Your task to perform on an android device: Go to notification settings Image 0: 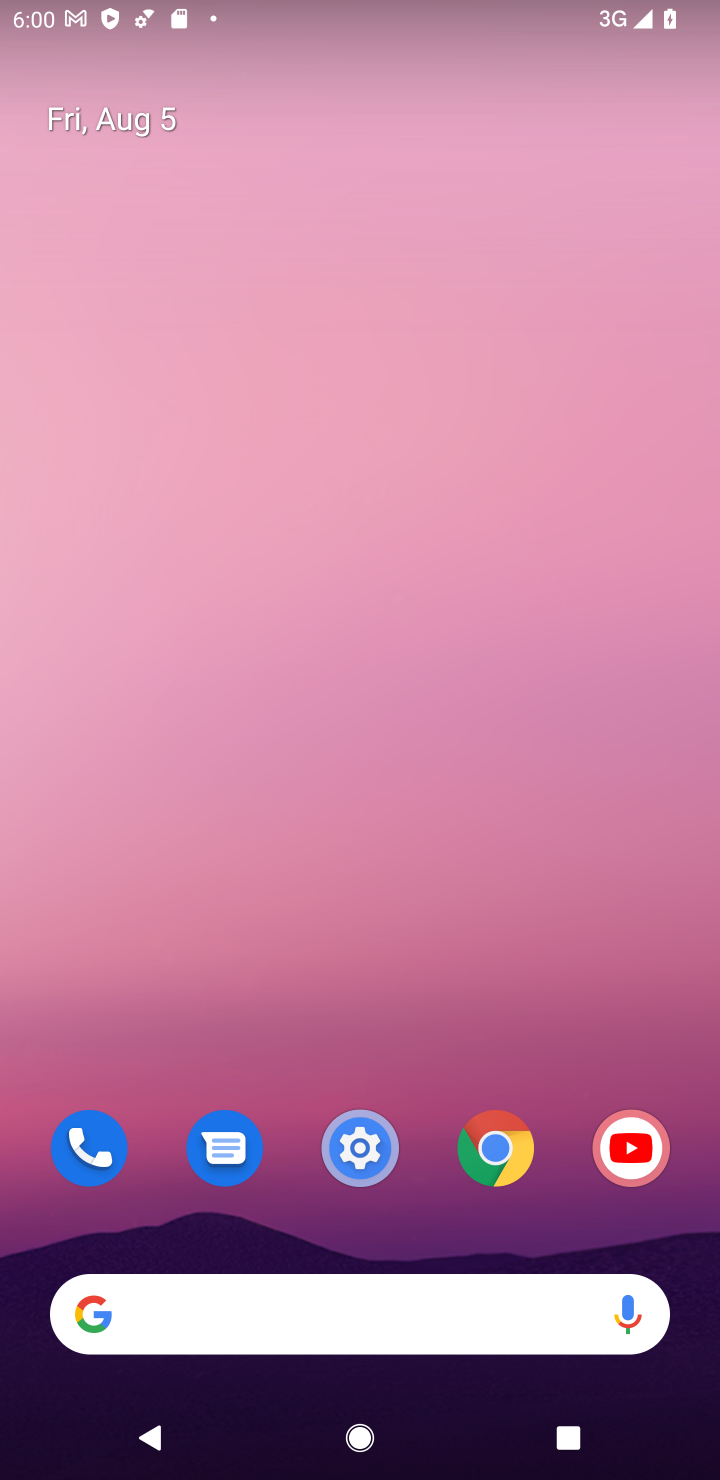
Step 0: click (358, 1151)
Your task to perform on an android device: Go to notification settings Image 1: 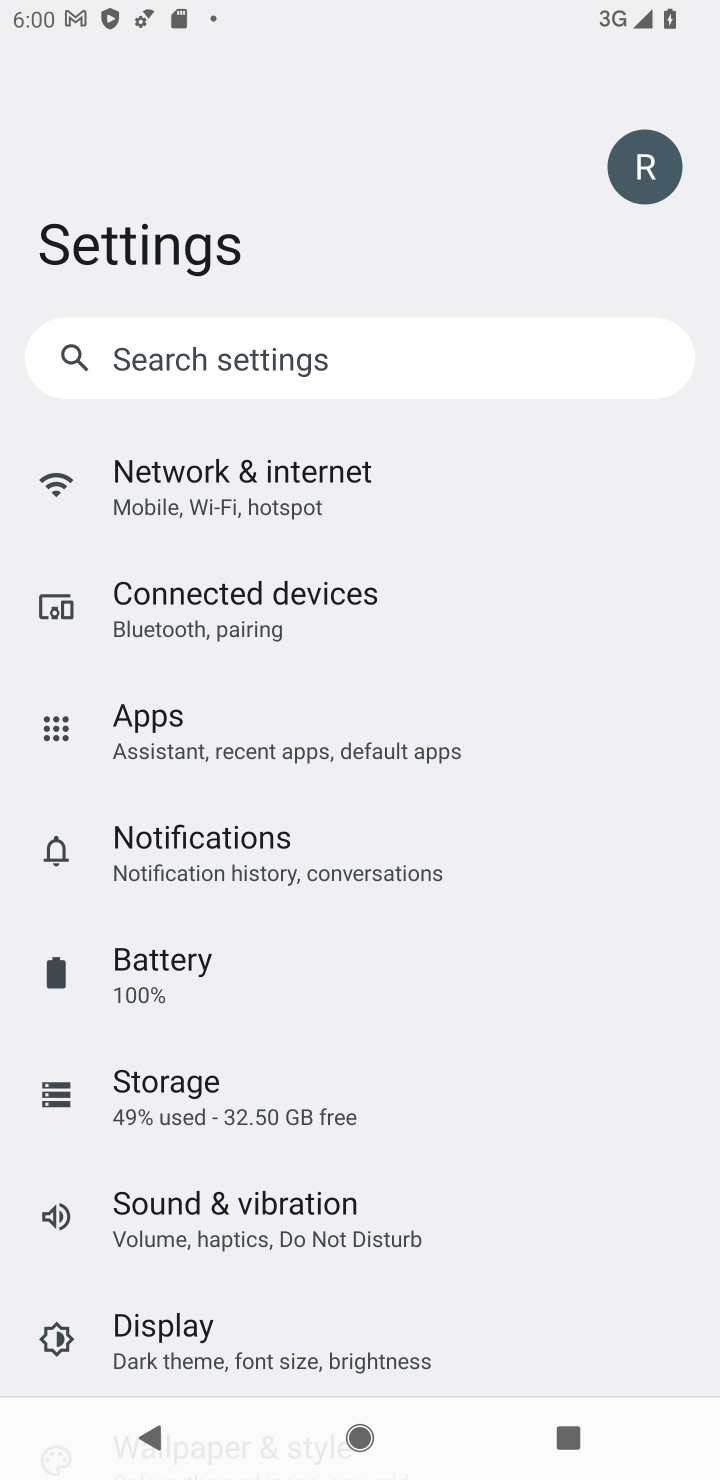
Step 1: click (225, 825)
Your task to perform on an android device: Go to notification settings Image 2: 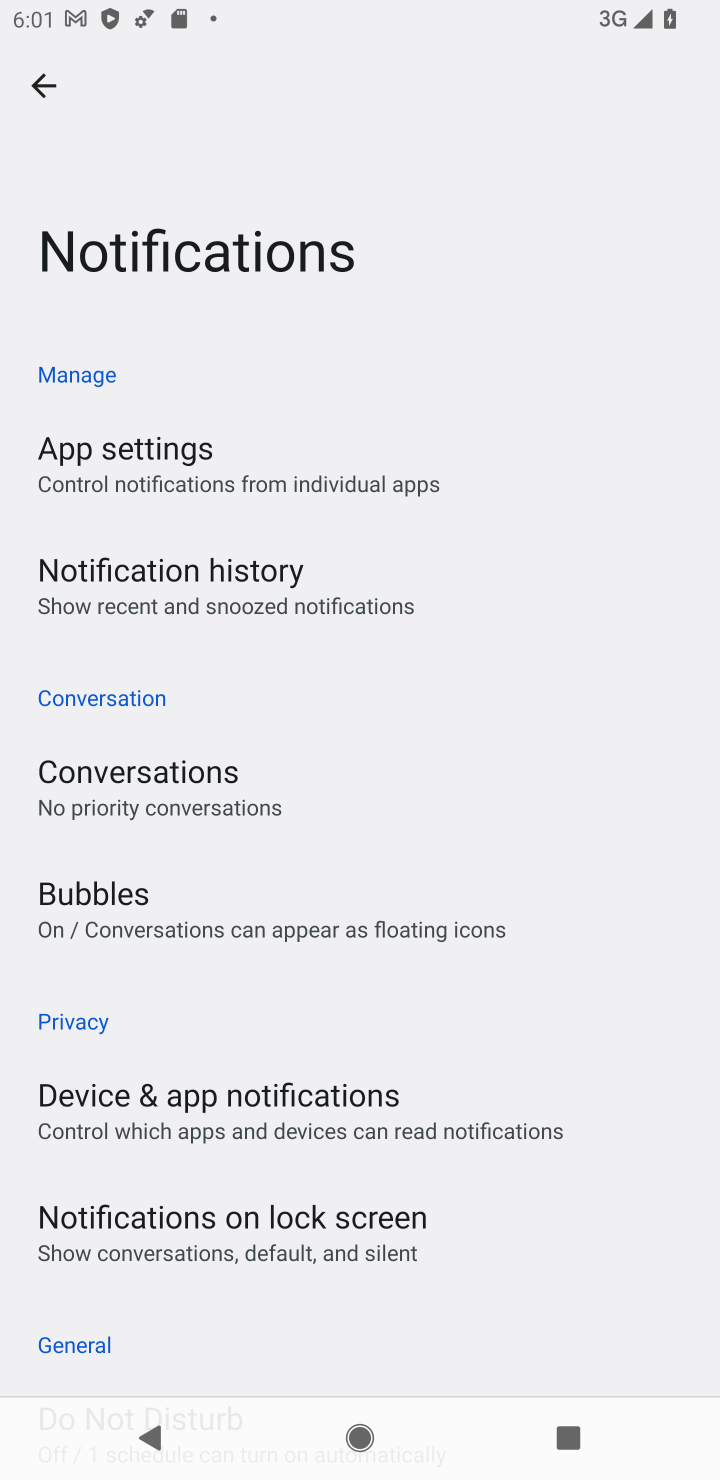
Step 2: task complete